Your task to perform on an android device: What's the weather today? Image 0: 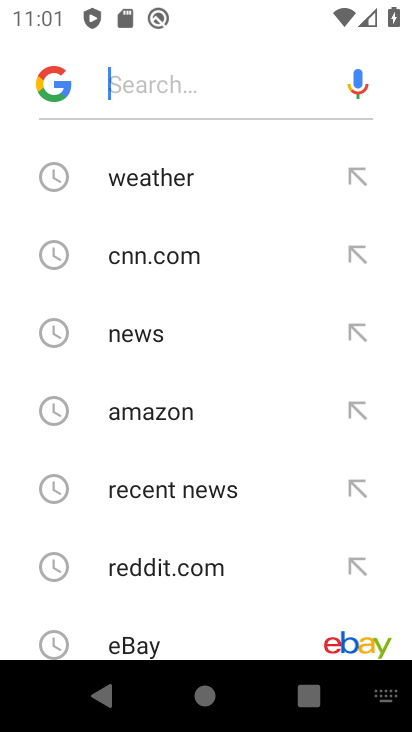
Step 0: press home button
Your task to perform on an android device: What's the weather today? Image 1: 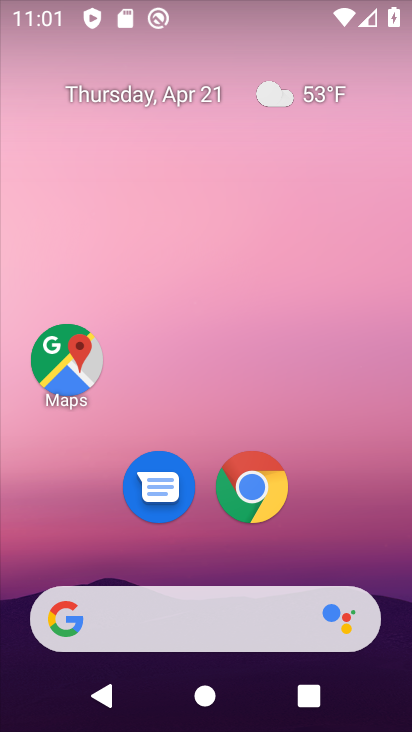
Step 1: click (303, 83)
Your task to perform on an android device: What's the weather today? Image 2: 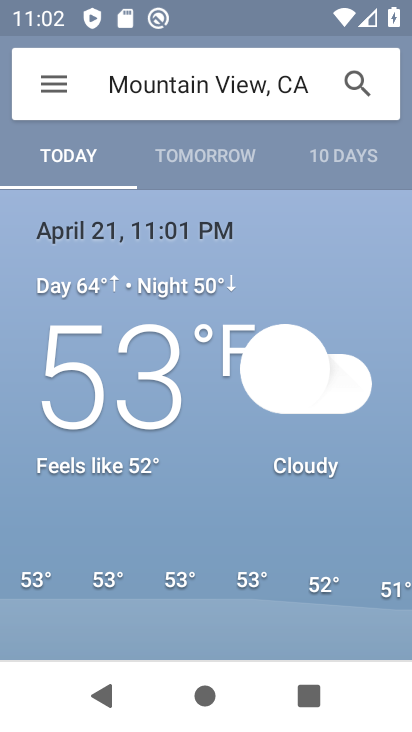
Step 2: task complete